Your task to perform on an android device: Open the stopwatch Image 0: 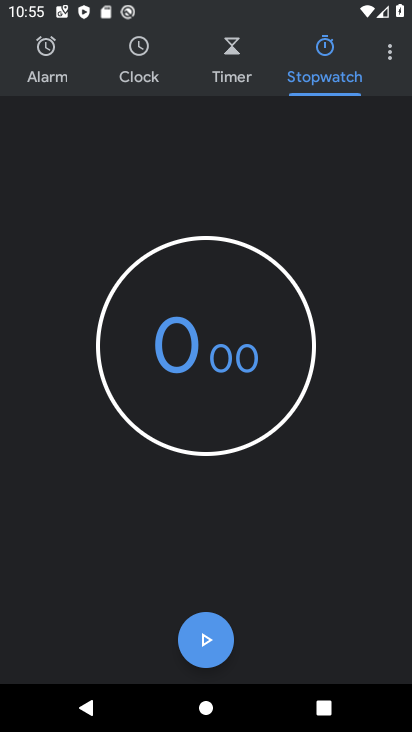
Step 0: task complete